Your task to perform on an android device: Open Youtube and go to "Your channel" Image 0: 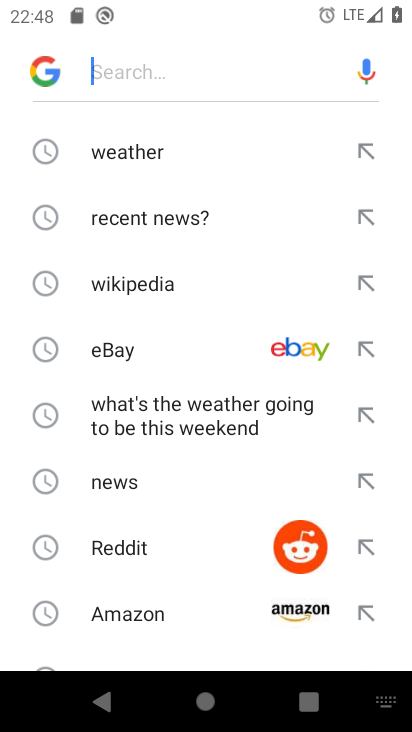
Step 0: press home button
Your task to perform on an android device: Open Youtube and go to "Your channel" Image 1: 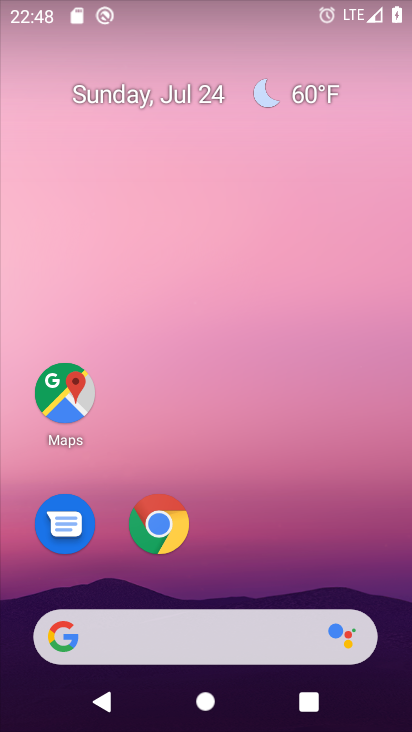
Step 1: drag from (252, 543) to (280, 108)
Your task to perform on an android device: Open Youtube and go to "Your channel" Image 2: 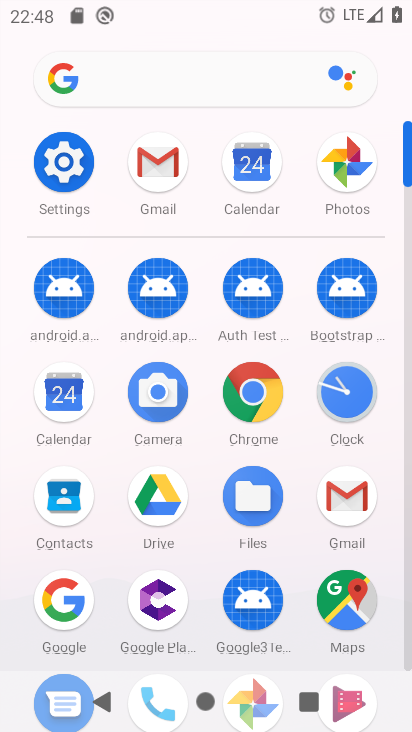
Step 2: drag from (223, 505) to (247, 140)
Your task to perform on an android device: Open Youtube and go to "Your channel" Image 3: 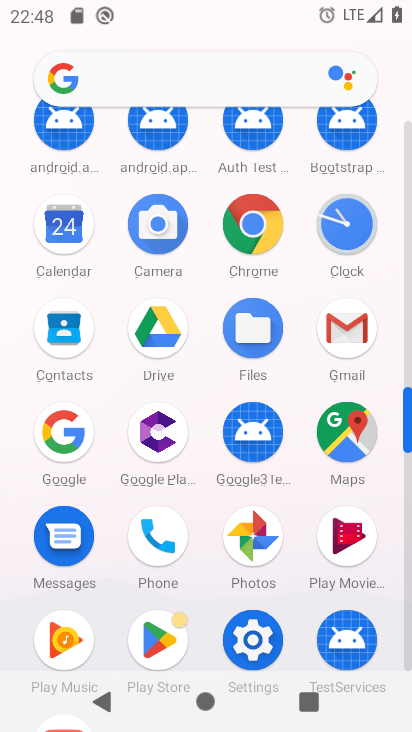
Step 3: drag from (215, 586) to (233, 244)
Your task to perform on an android device: Open Youtube and go to "Your channel" Image 4: 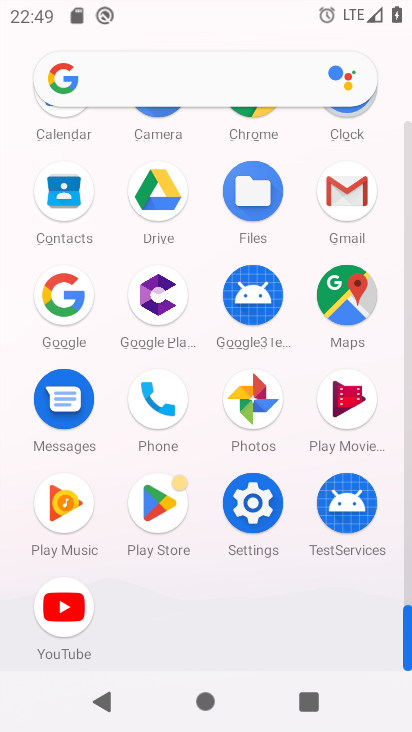
Step 4: click (62, 597)
Your task to perform on an android device: Open Youtube and go to "Your channel" Image 5: 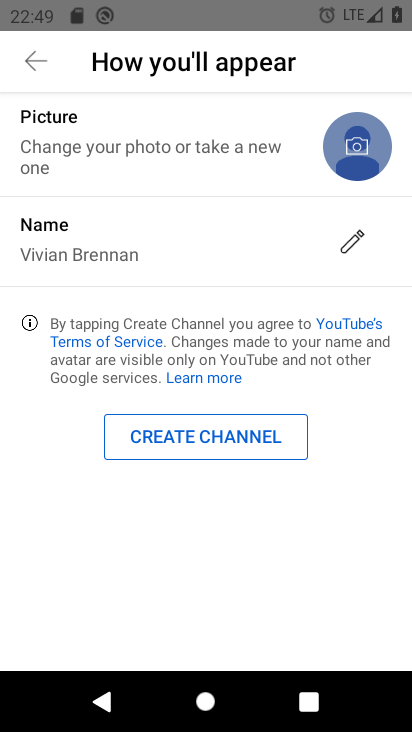
Step 5: task complete